Your task to perform on an android device: open chrome and create a bookmark for the current page Image 0: 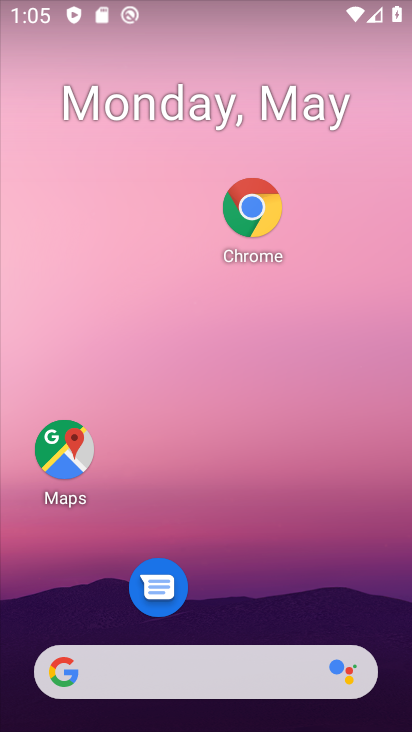
Step 0: click (273, 214)
Your task to perform on an android device: open chrome and create a bookmark for the current page Image 1: 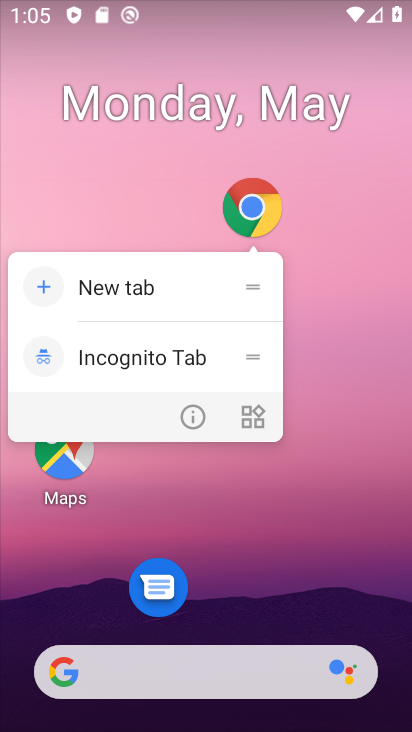
Step 1: click (244, 203)
Your task to perform on an android device: open chrome and create a bookmark for the current page Image 2: 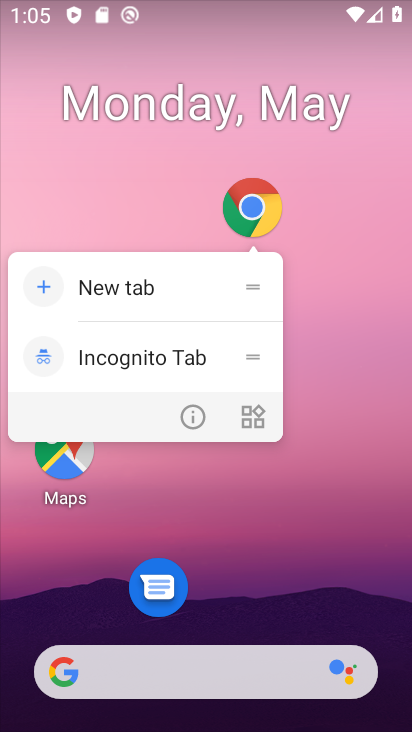
Step 2: click (244, 203)
Your task to perform on an android device: open chrome and create a bookmark for the current page Image 3: 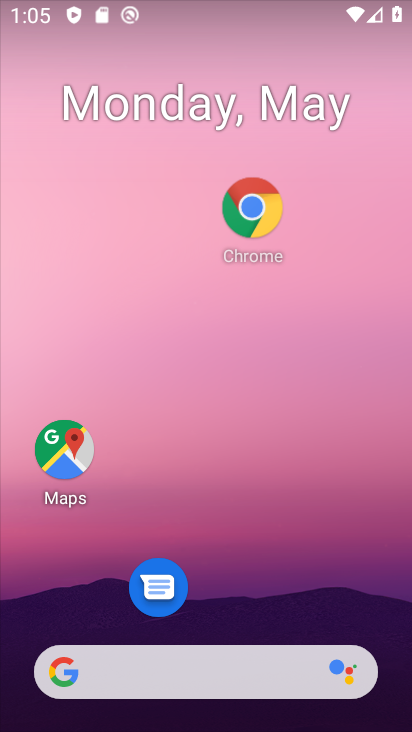
Step 3: click (244, 203)
Your task to perform on an android device: open chrome and create a bookmark for the current page Image 4: 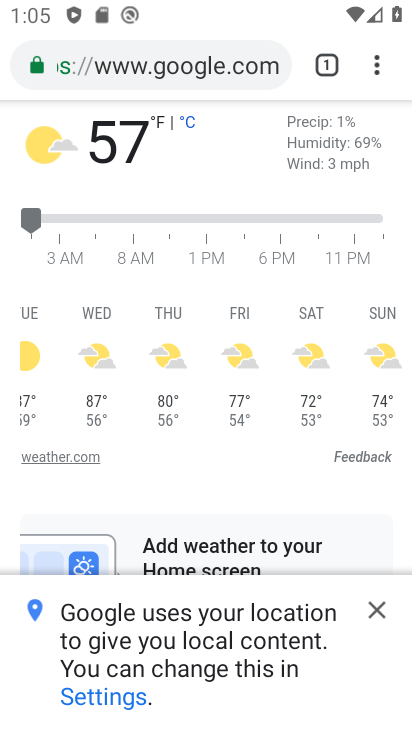
Step 4: drag from (349, 118) to (318, 464)
Your task to perform on an android device: open chrome and create a bookmark for the current page Image 5: 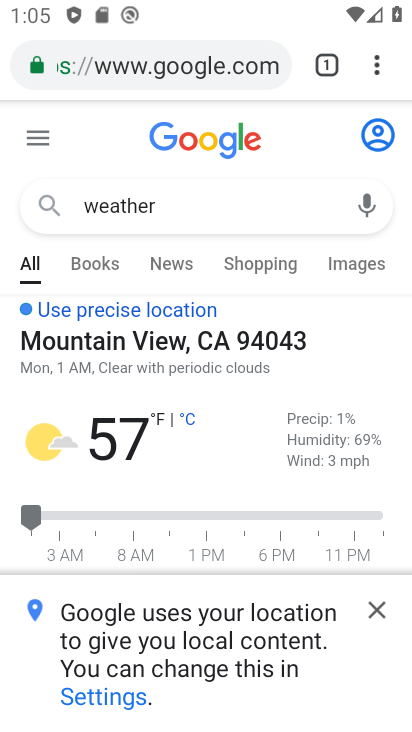
Step 5: click (367, 75)
Your task to perform on an android device: open chrome and create a bookmark for the current page Image 6: 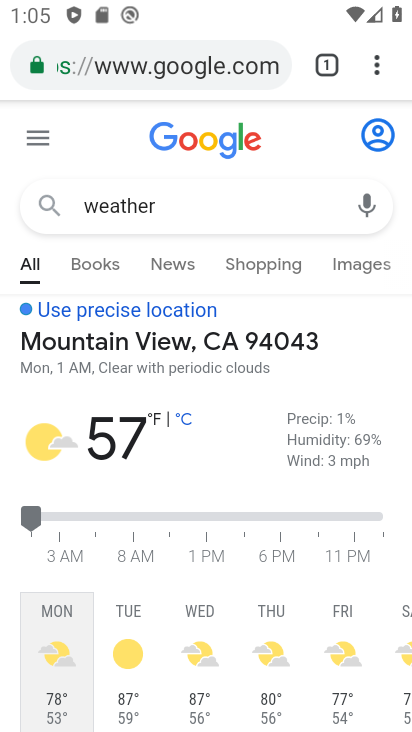
Step 6: click (377, 58)
Your task to perform on an android device: open chrome and create a bookmark for the current page Image 7: 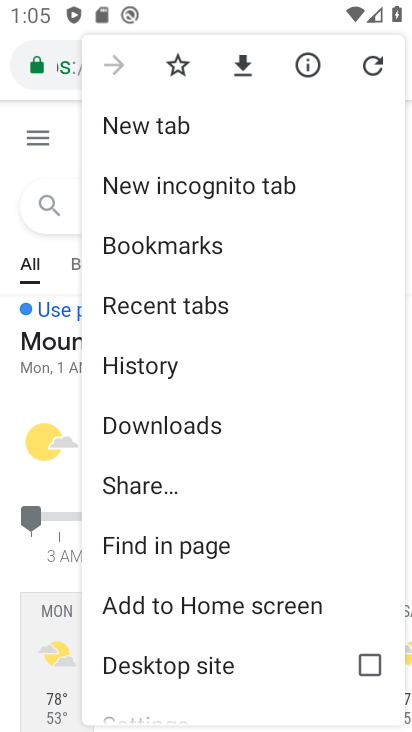
Step 7: click (176, 68)
Your task to perform on an android device: open chrome and create a bookmark for the current page Image 8: 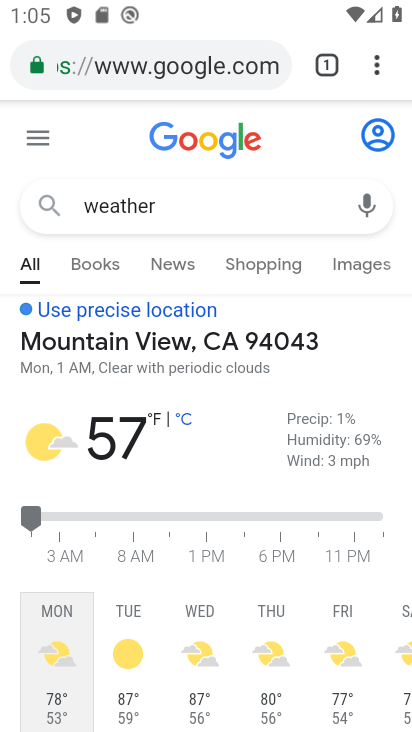
Step 8: task complete